Your task to perform on an android device: turn off priority inbox in the gmail app Image 0: 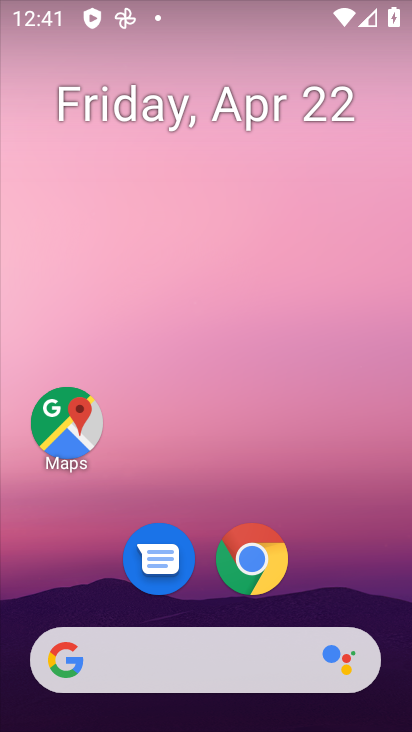
Step 0: drag from (363, 579) to (365, 212)
Your task to perform on an android device: turn off priority inbox in the gmail app Image 1: 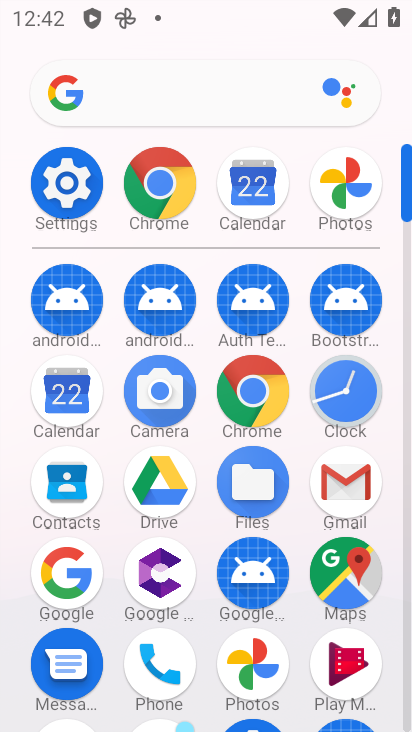
Step 1: click (356, 487)
Your task to perform on an android device: turn off priority inbox in the gmail app Image 2: 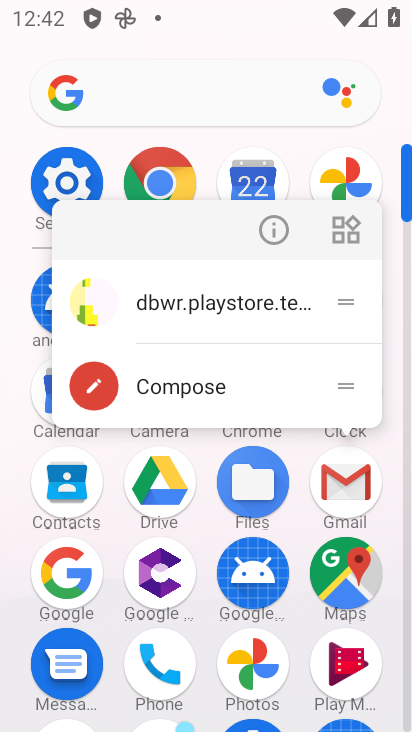
Step 2: click (362, 494)
Your task to perform on an android device: turn off priority inbox in the gmail app Image 3: 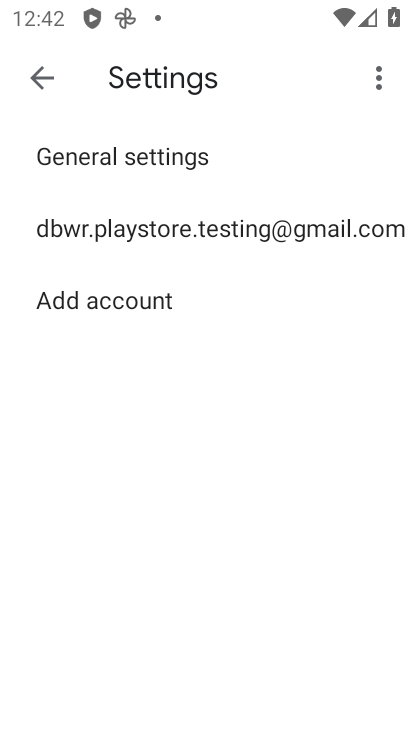
Step 3: click (120, 222)
Your task to perform on an android device: turn off priority inbox in the gmail app Image 4: 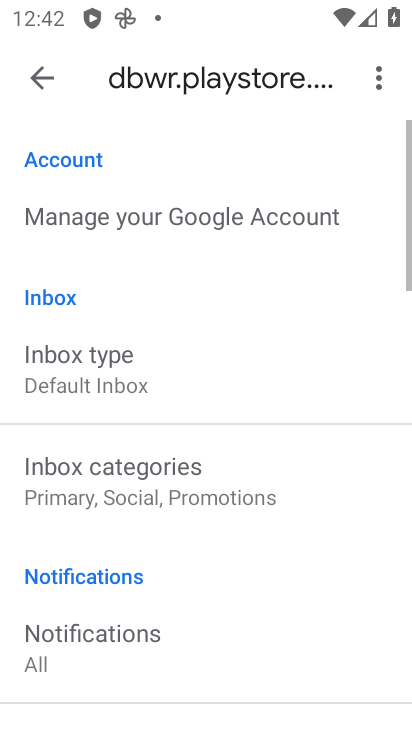
Step 4: drag from (316, 563) to (334, 402)
Your task to perform on an android device: turn off priority inbox in the gmail app Image 5: 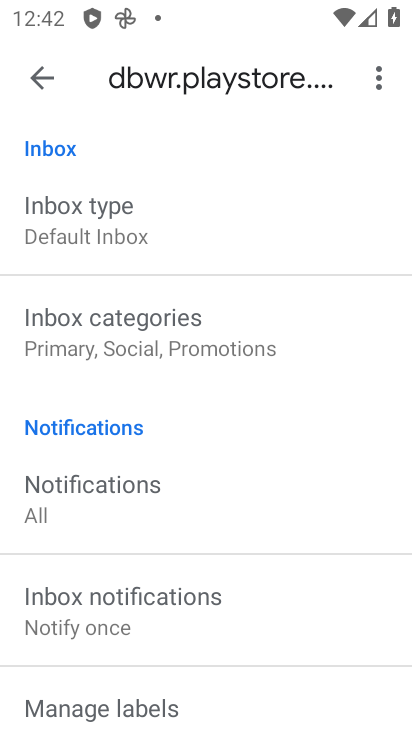
Step 5: drag from (328, 591) to (344, 407)
Your task to perform on an android device: turn off priority inbox in the gmail app Image 6: 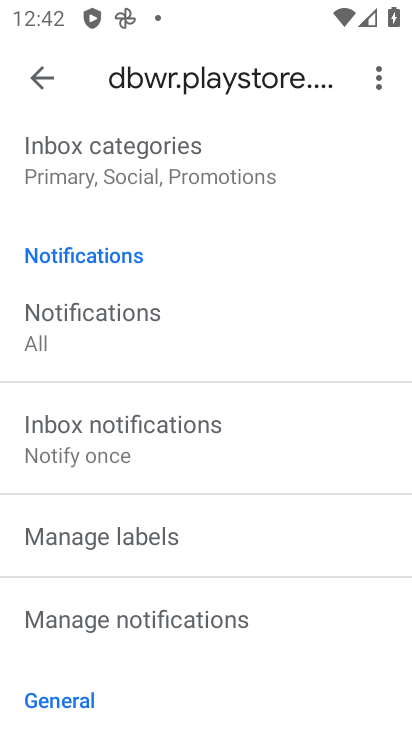
Step 6: drag from (331, 596) to (327, 420)
Your task to perform on an android device: turn off priority inbox in the gmail app Image 7: 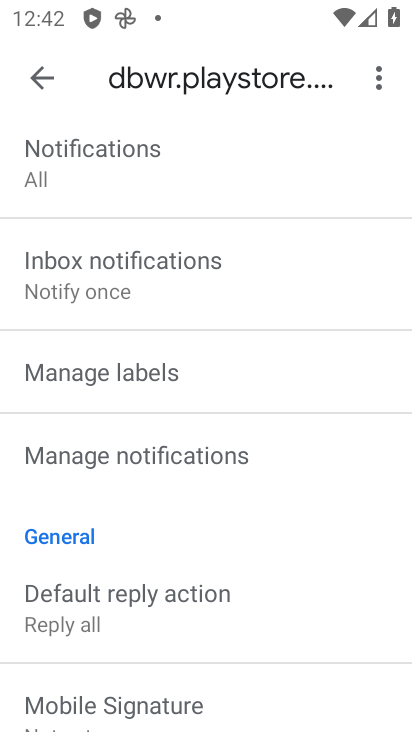
Step 7: drag from (332, 617) to (336, 455)
Your task to perform on an android device: turn off priority inbox in the gmail app Image 8: 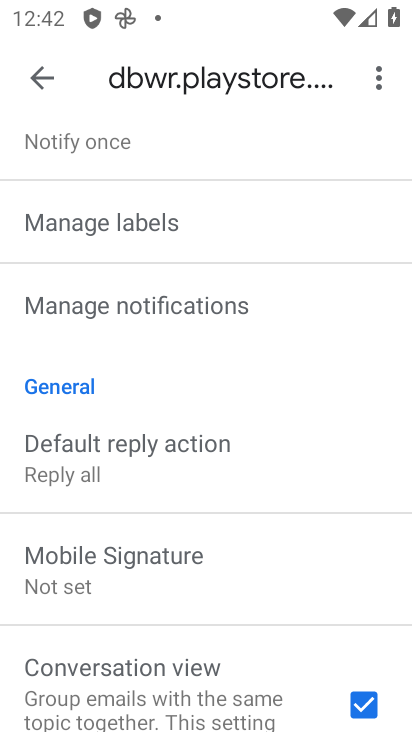
Step 8: drag from (311, 620) to (314, 504)
Your task to perform on an android device: turn off priority inbox in the gmail app Image 9: 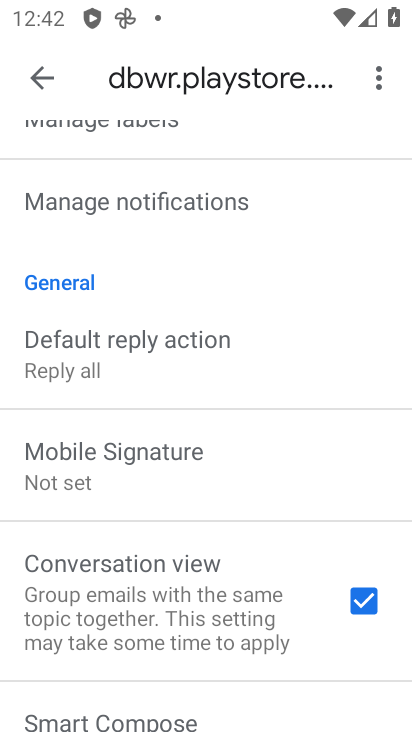
Step 9: drag from (331, 318) to (300, 518)
Your task to perform on an android device: turn off priority inbox in the gmail app Image 10: 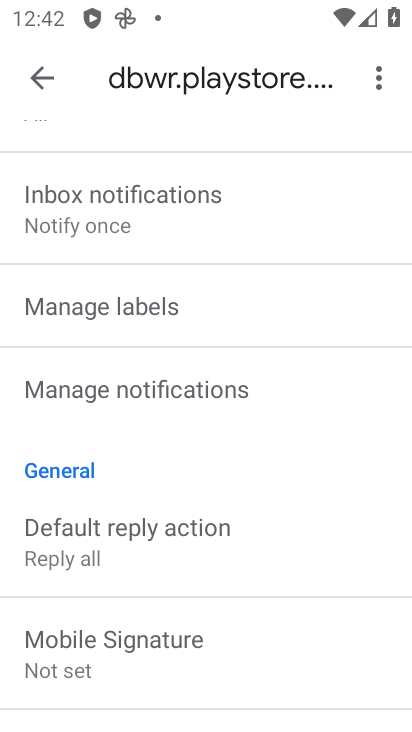
Step 10: drag from (299, 307) to (290, 463)
Your task to perform on an android device: turn off priority inbox in the gmail app Image 11: 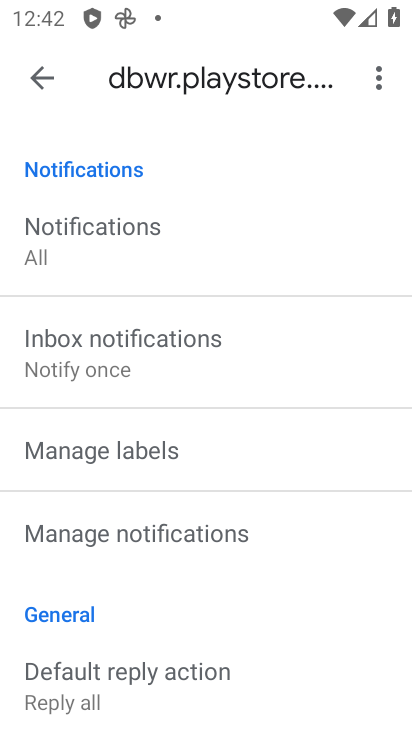
Step 11: drag from (304, 251) to (291, 435)
Your task to perform on an android device: turn off priority inbox in the gmail app Image 12: 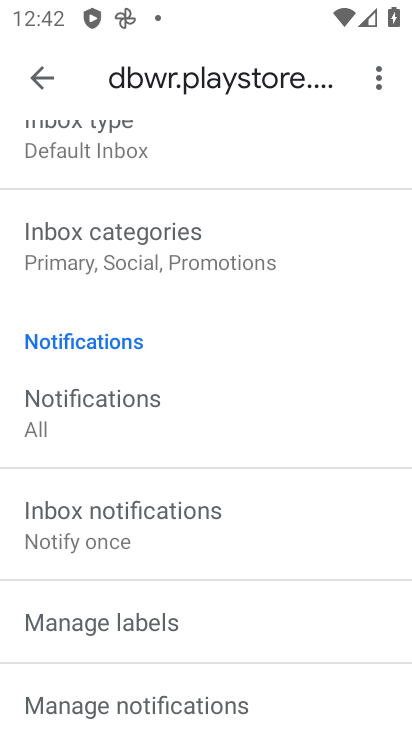
Step 12: drag from (315, 231) to (307, 425)
Your task to perform on an android device: turn off priority inbox in the gmail app Image 13: 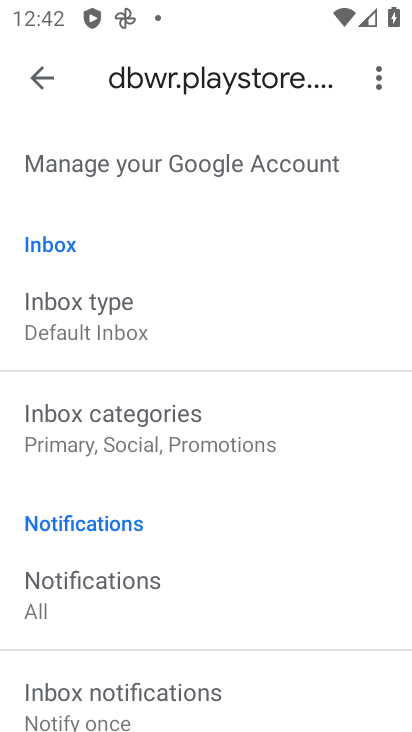
Step 13: drag from (328, 258) to (319, 383)
Your task to perform on an android device: turn off priority inbox in the gmail app Image 14: 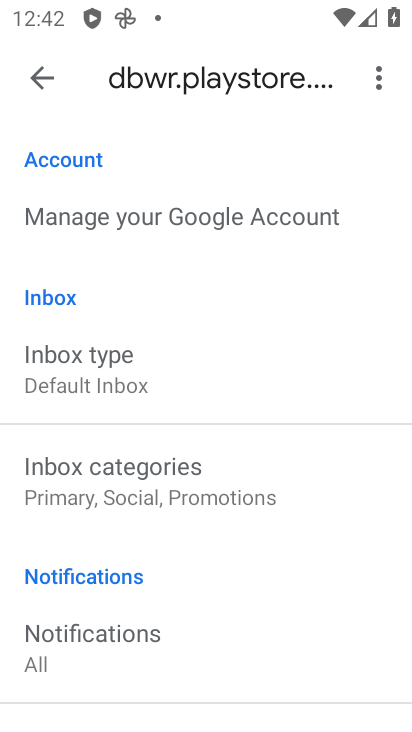
Step 14: click (95, 385)
Your task to perform on an android device: turn off priority inbox in the gmail app Image 15: 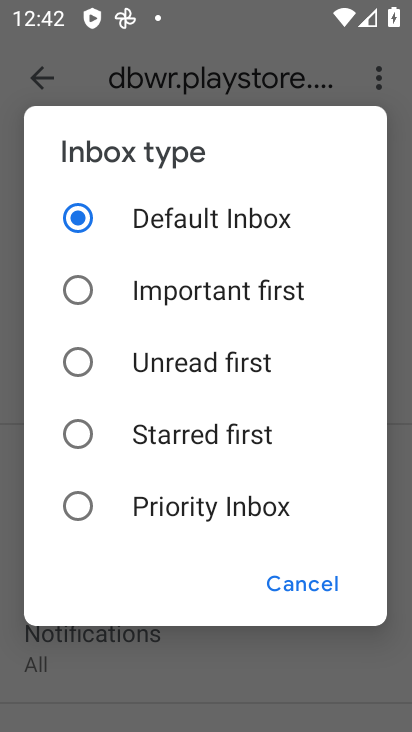
Step 15: task complete